Your task to perform on an android device: Search for Italian restaurants on Maps Image 0: 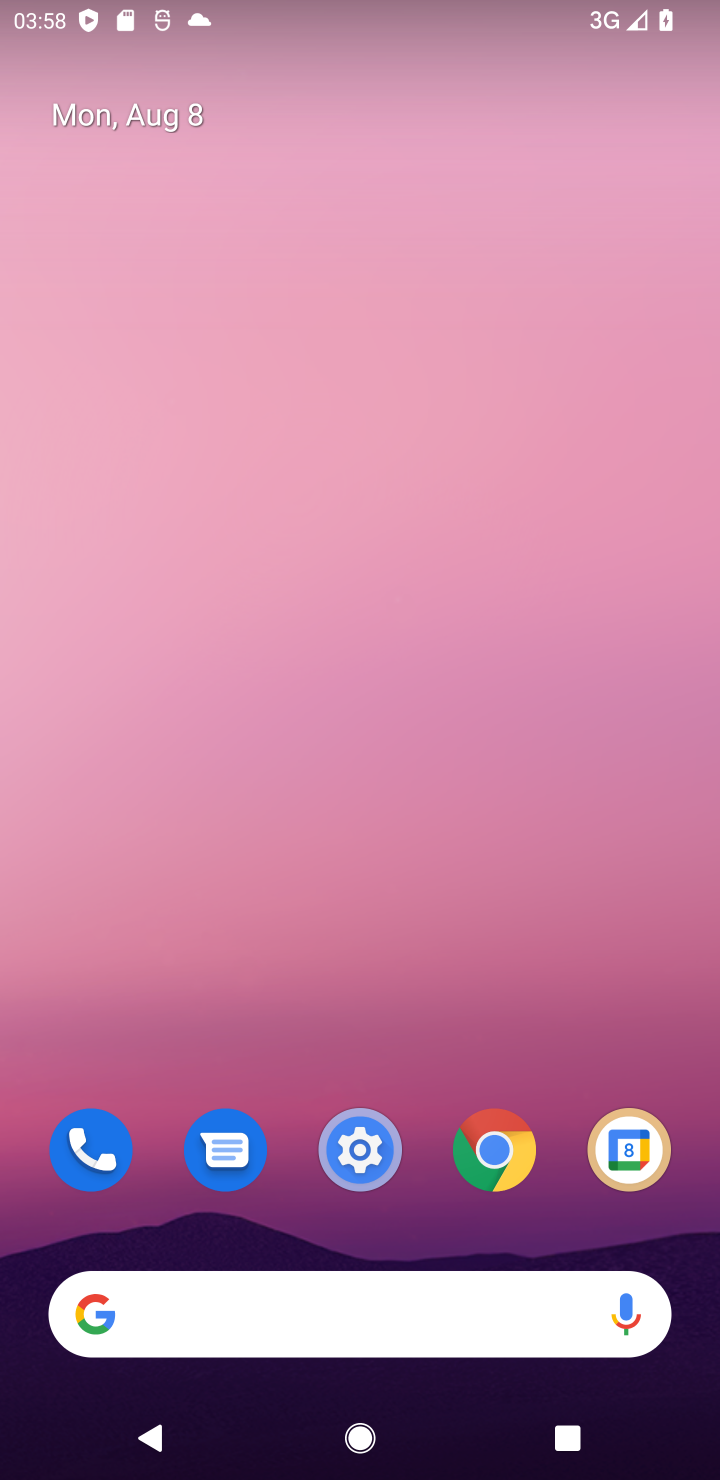
Step 0: click (470, 161)
Your task to perform on an android device: Search for Italian restaurants on Maps Image 1: 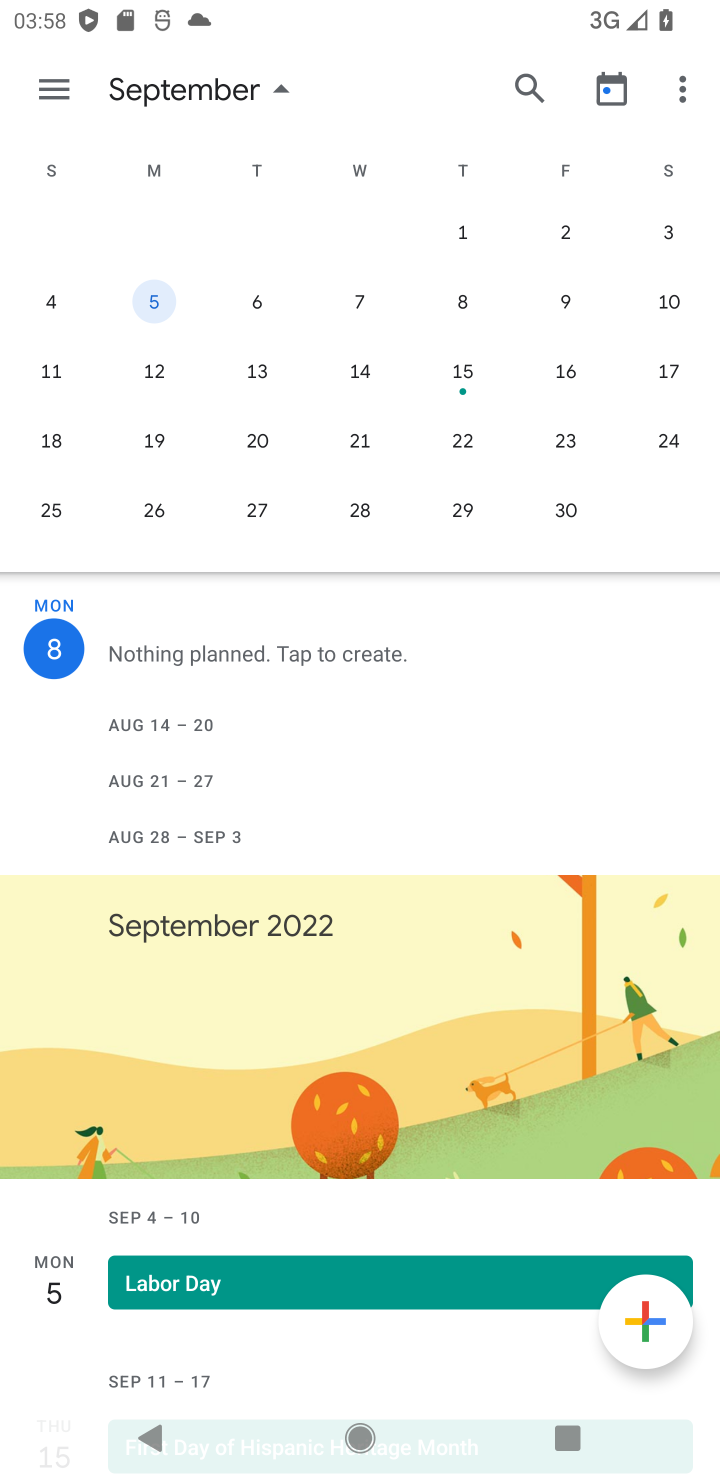
Step 1: press home button
Your task to perform on an android device: Search for Italian restaurants on Maps Image 2: 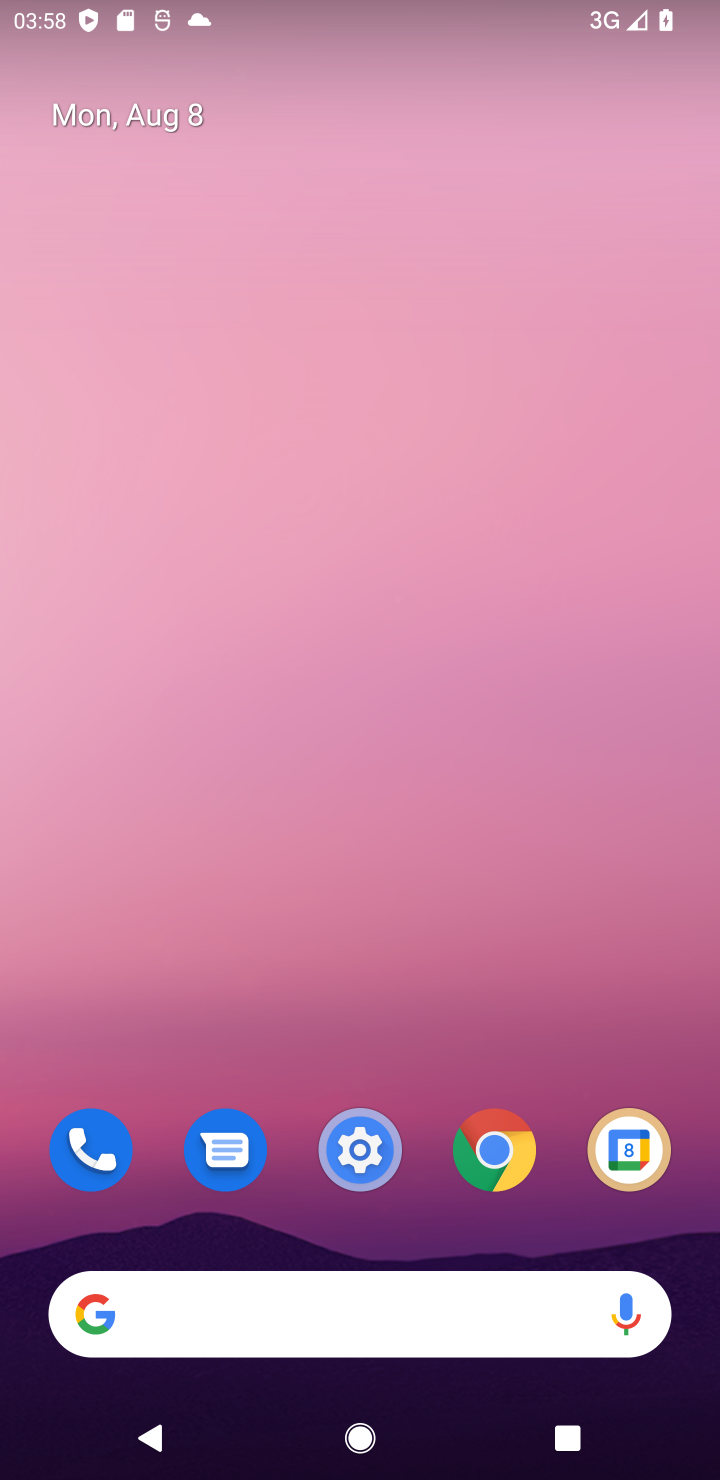
Step 2: drag from (97, 1371) to (306, 537)
Your task to perform on an android device: Search for Italian restaurants on Maps Image 3: 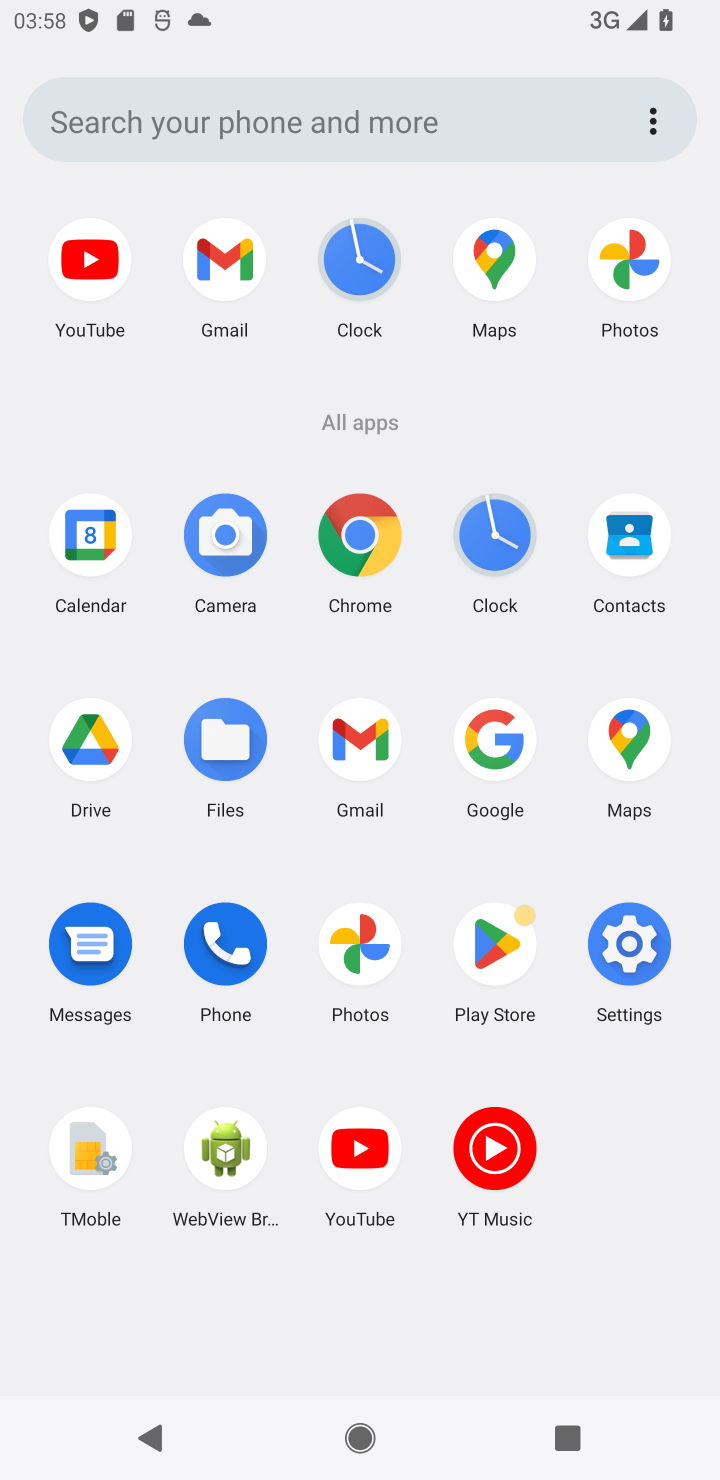
Step 3: click (623, 753)
Your task to perform on an android device: Search for Italian restaurants on Maps Image 4: 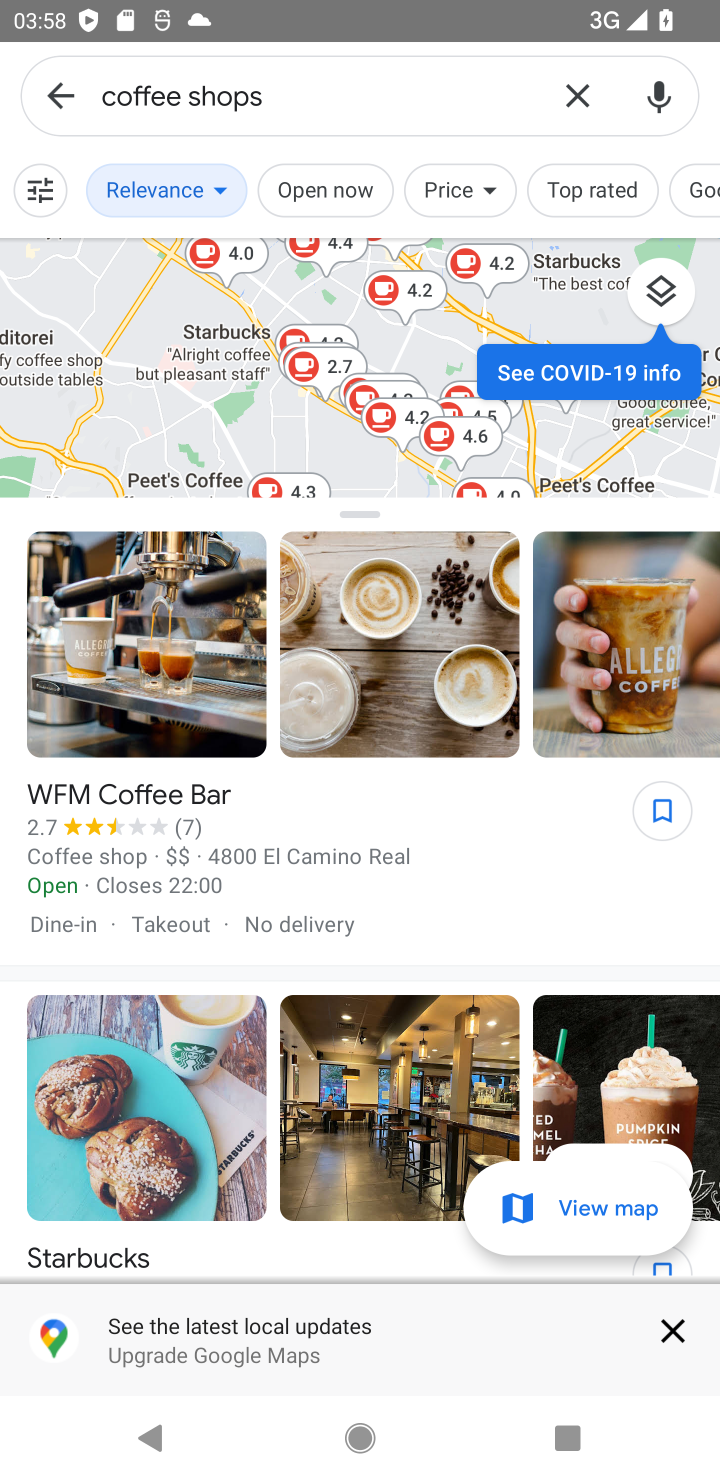
Step 4: click (59, 92)
Your task to perform on an android device: Search for Italian restaurants on Maps Image 5: 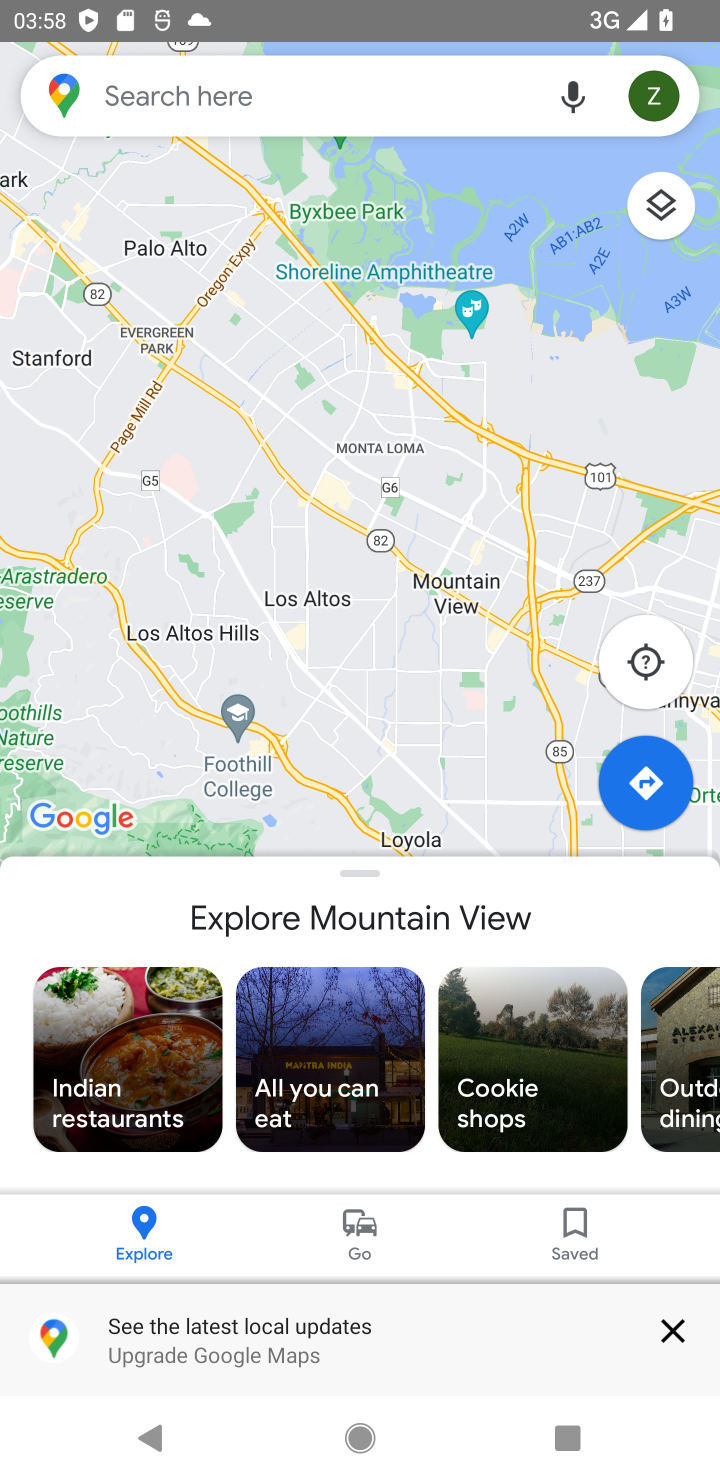
Step 5: click (206, 97)
Your task to perform on an android device: Search for Italian restaurants on Maps Image 6: 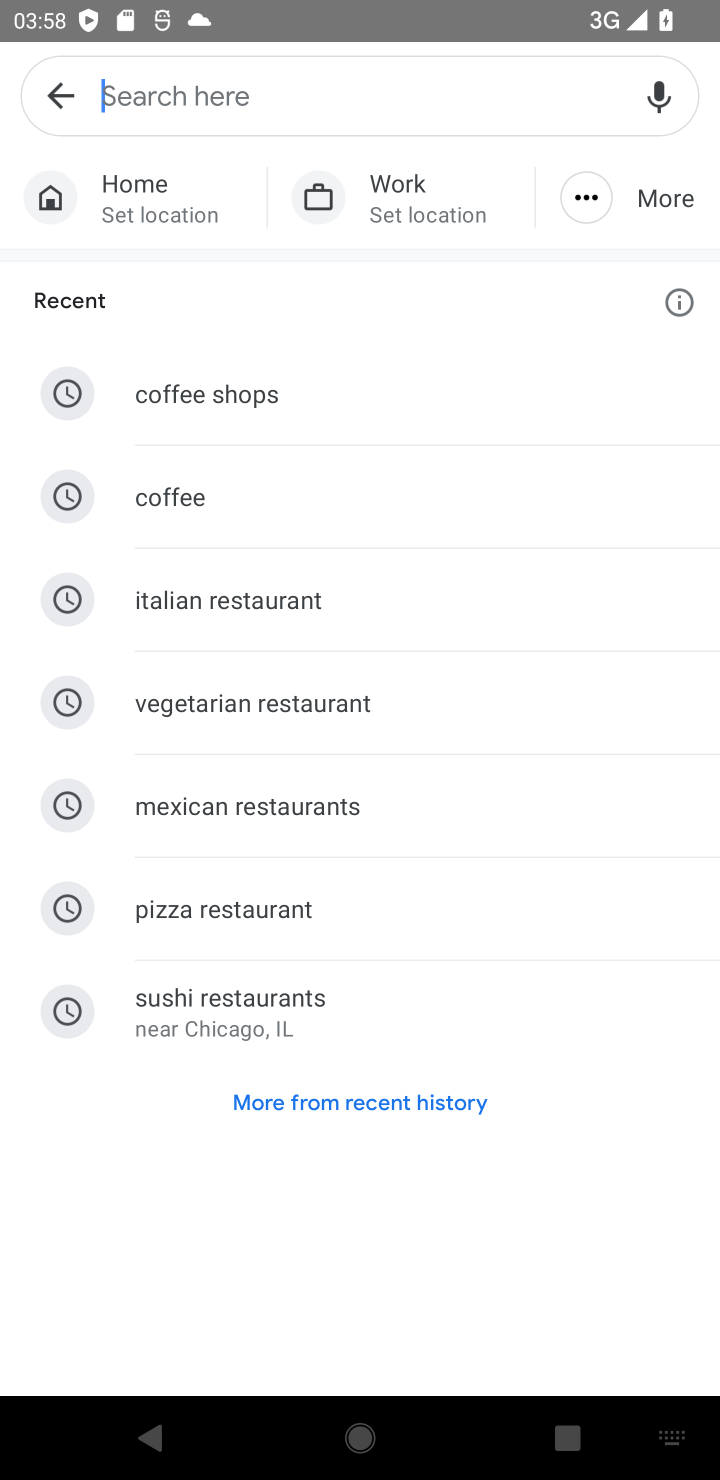
Step 6: click (268, 599)
Your task to perform on an android device: Search for Italian restaurants on Maps Image 7: 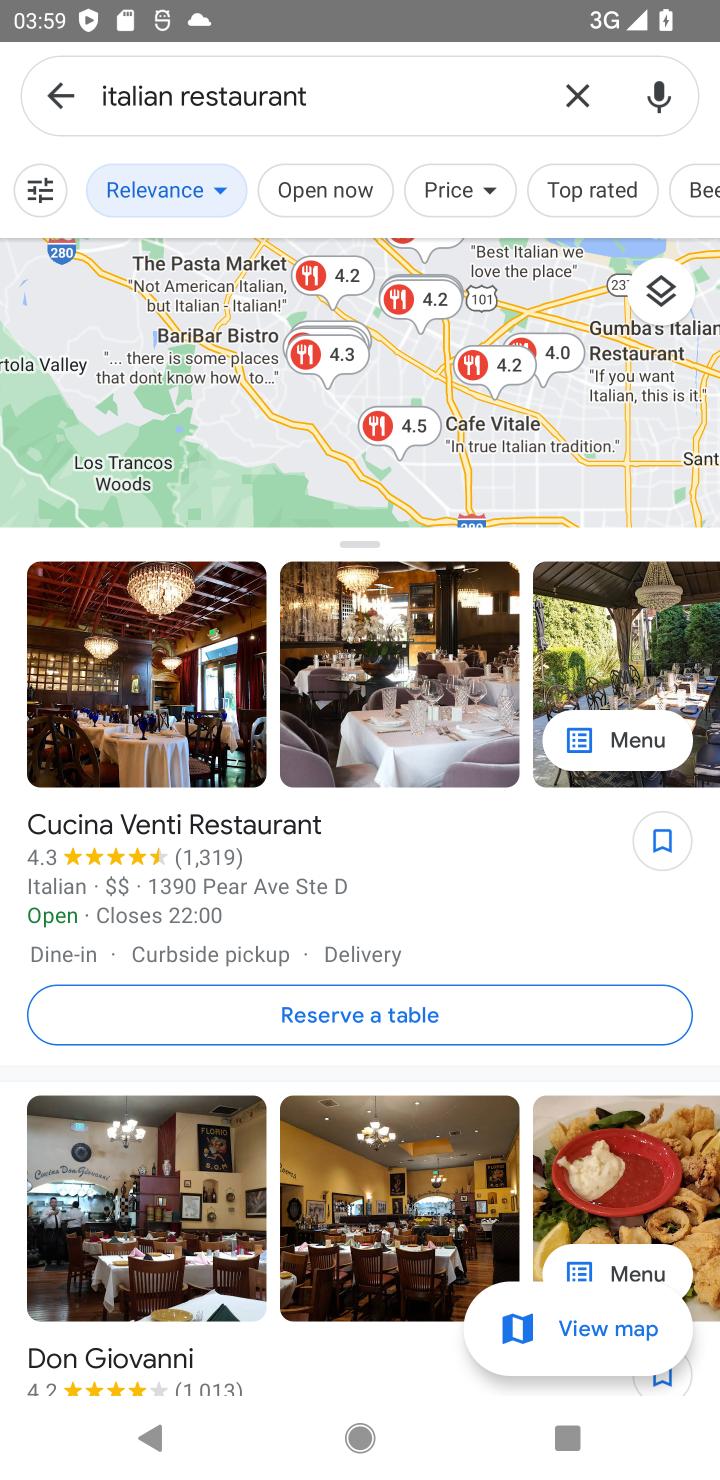
Step 7: task complete